Your task to perform on an android device: toggle pop-ups in chrome Image 0: 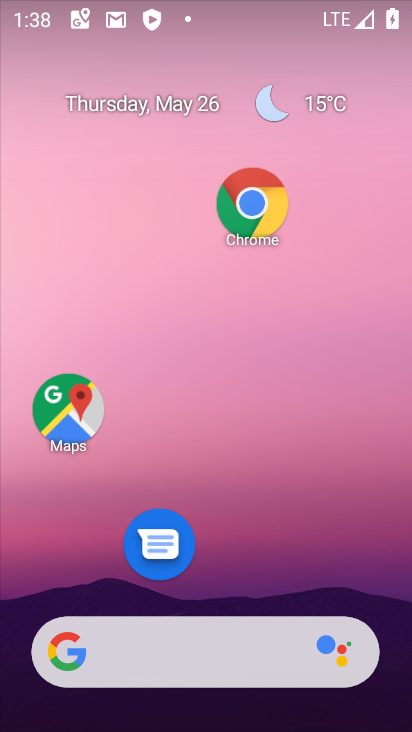
Step 0: click (263, 204)
Your task to perform on an android device: toggle pop-ups in chrome Image 1: 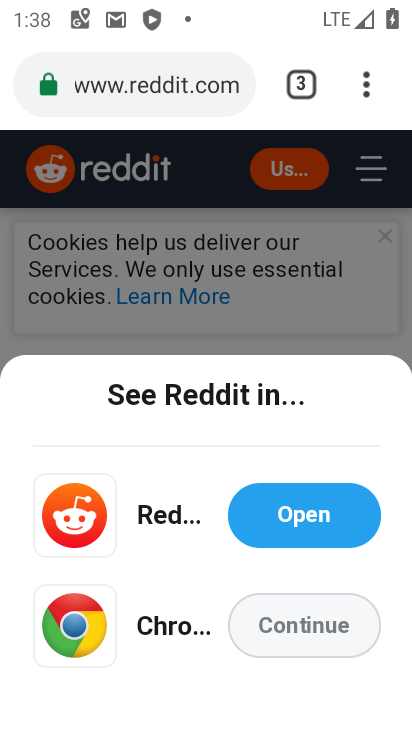
Step 1: click (370, 89)
Your task to perform on an android device: toggle pop-ups in chrome Image 2: 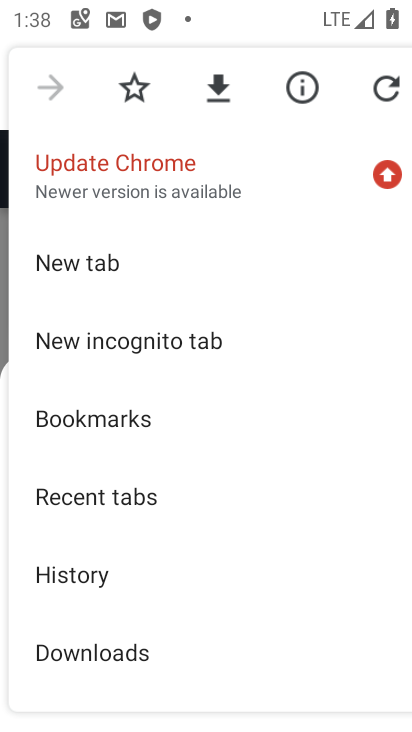
Step 2: drag from (183, 560) to (197, 24)
Your task to perform on an android device: toggle pop-ups in chrome Image 3: 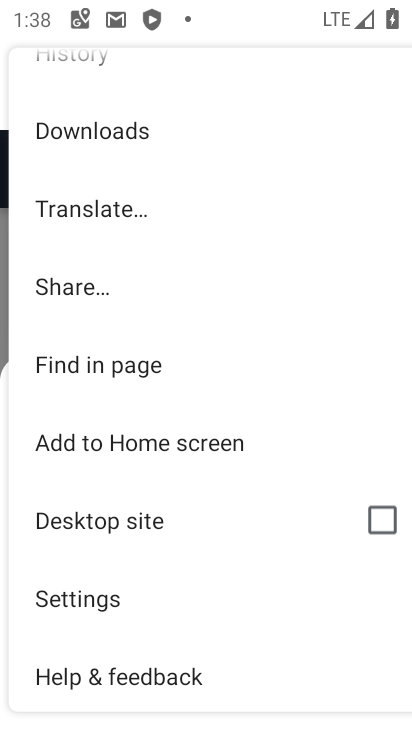
Step 3: click (158, 608)
Your task to perform on an android device: toggle pop-ups in chrome Image 4: 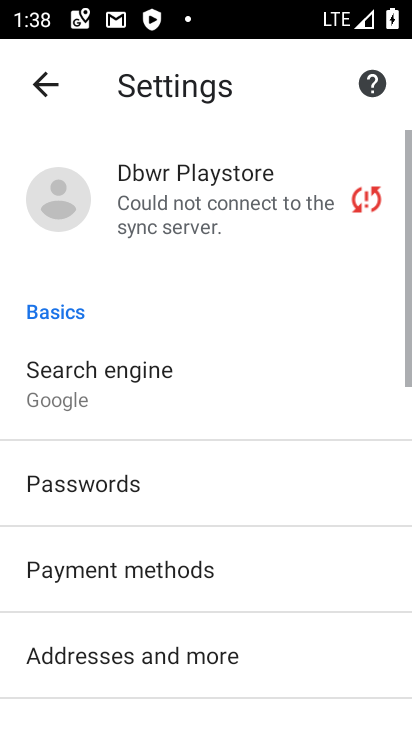
Step 4: drag from (271, 633) to (257, 166)
Your task to perform on an android device: toggle pop-ups in chrome Image 5: 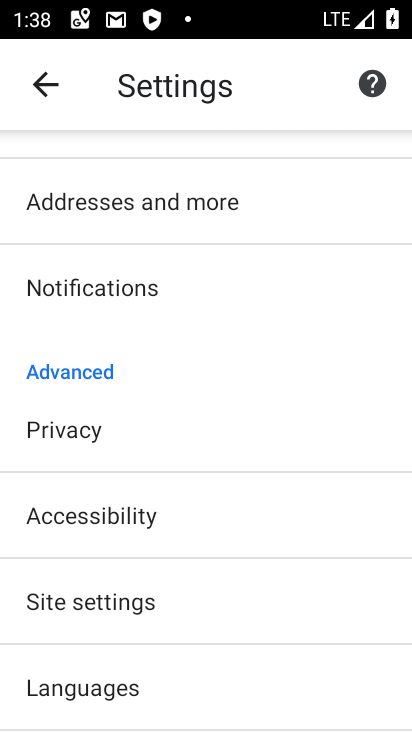
Step 5: click (134, 597)
Your task to perform on an android device: toggle pop-ups in chrome Image 6: 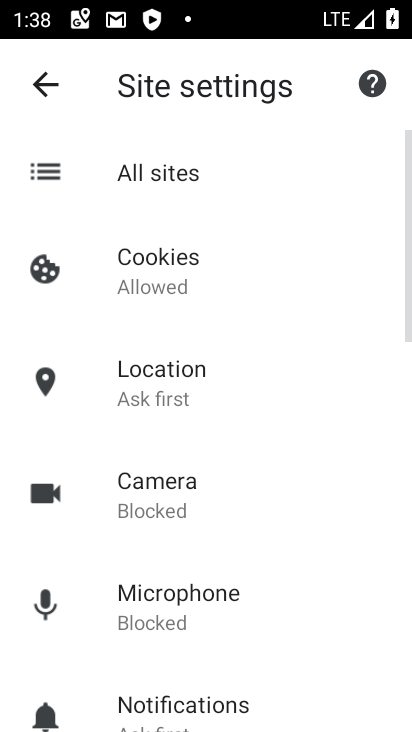
Step 6: drag from (280, 639) to (327, 235)
Your task to perform on an android device: toggle pop-ups in chrome Image 7: 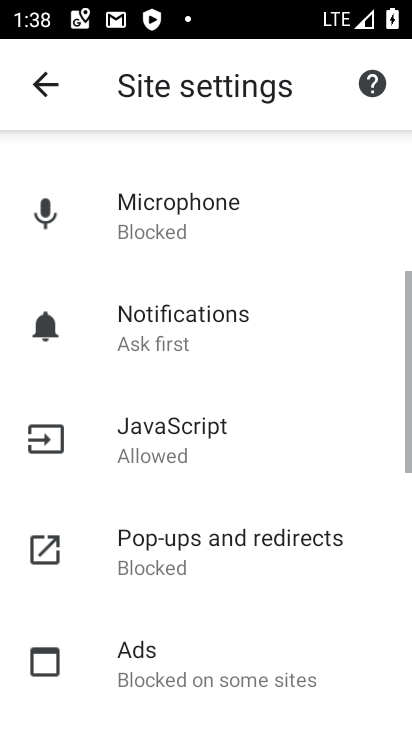
Step 7: click (175, 551)
Your task to perform on an android device: toggle pop-ups in chrome Image 8: 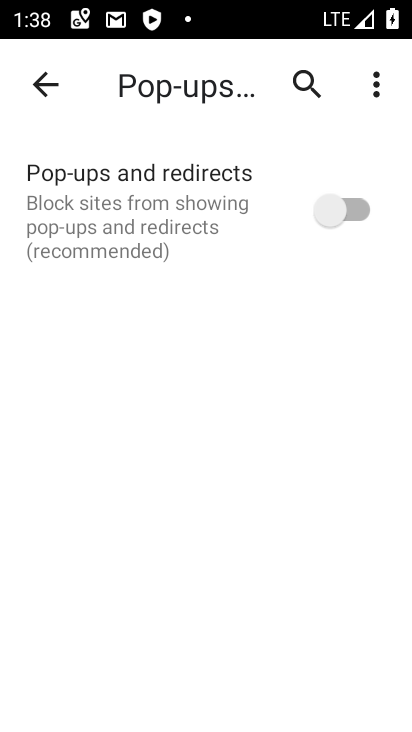
Step 8: click (347, 209)
Your task to perform on an android device: toggle pop-ups in chrome Image 9: 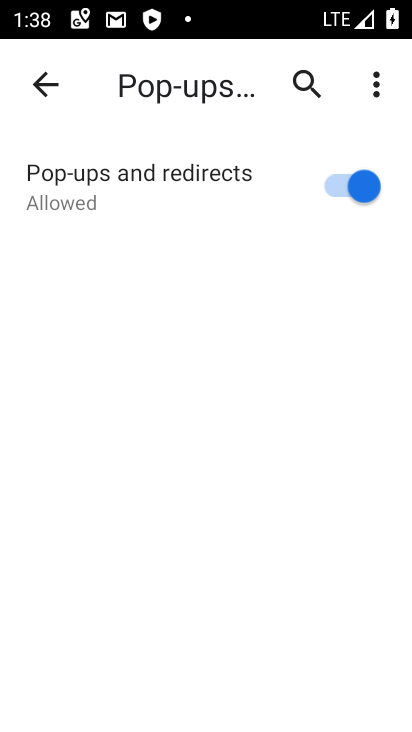
Step 9: task complete